Your task to perform on an android device: Go to Google Image 0: 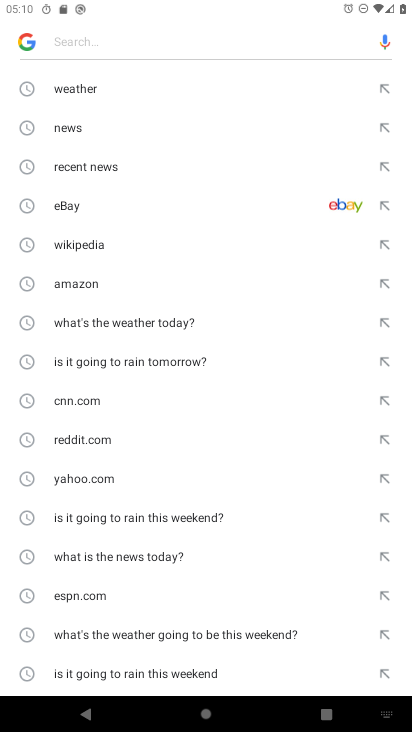
Step 0: press home button
Your task to perform on an android device: Go to Google Image 1: 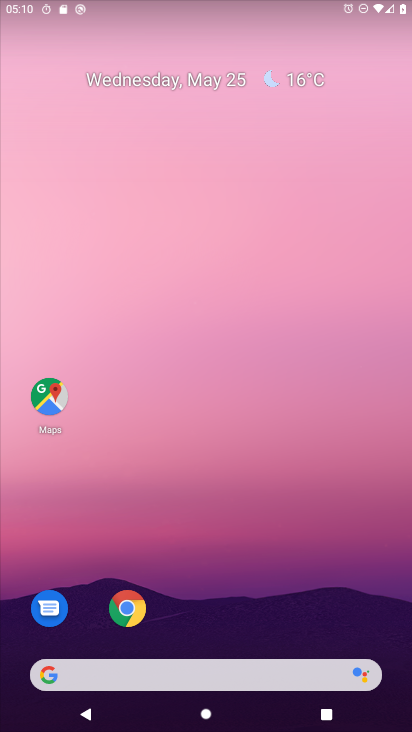
Step 1: drag from (230, 538) to (258, 82)
Your task to perform on an android device: Go to Google Image 2: 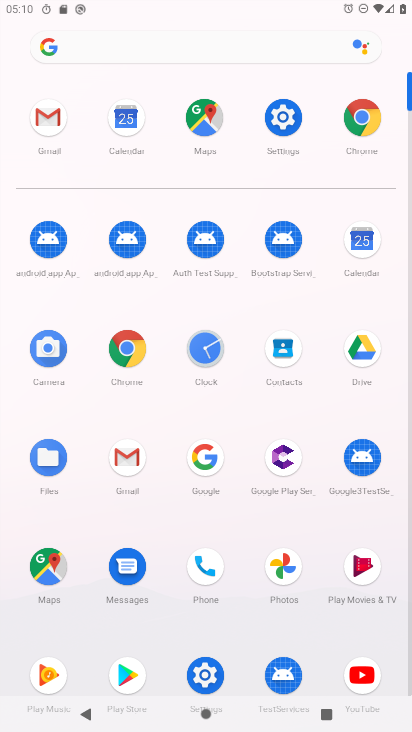
Step 2: click (206, 460)
Your task to perform on an android device: Go to Google Image 3: 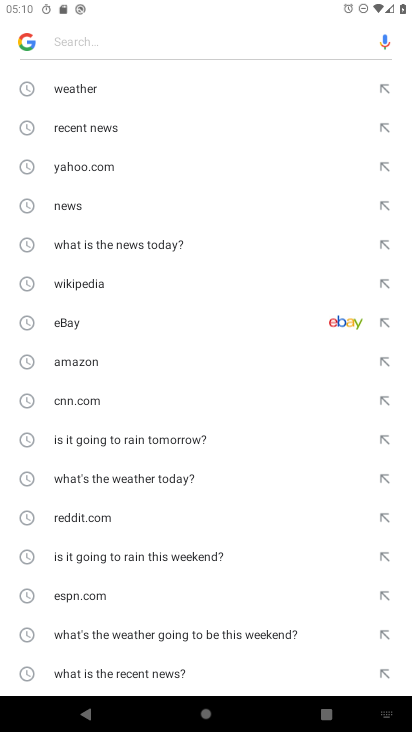
Step 3: task complete